Your task to perform on an android device: Go to wifi settings Image 0: 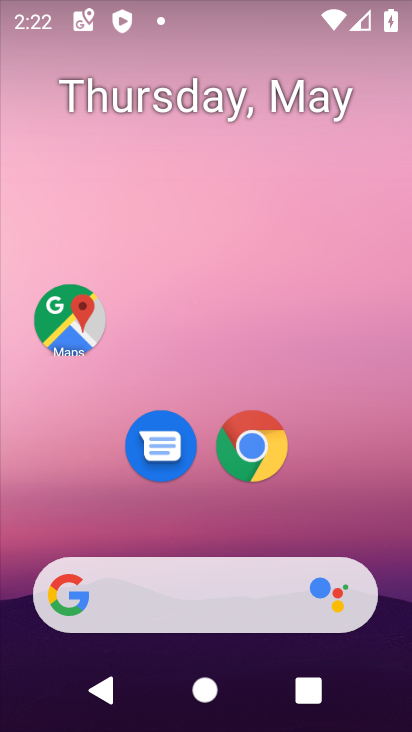
Step 0: drag from (322, 530) to (264, 19)
Your task to perform on an android device: Go to wifi settings Image 1: 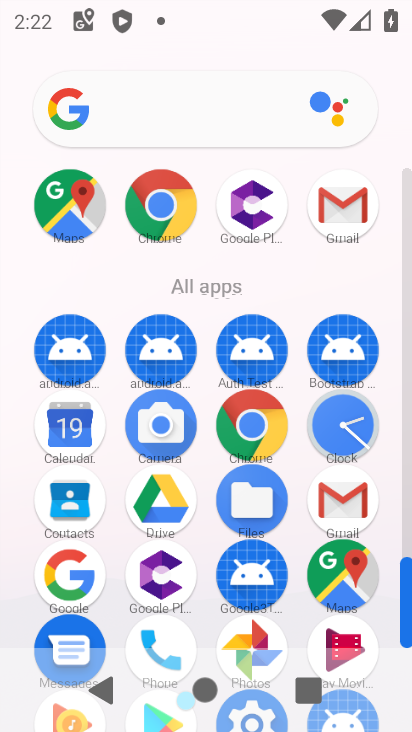
Step 1: drag from (199, 478) to (273, 192)
Your task to perform on an android device: Go to wifi settings Image 2: 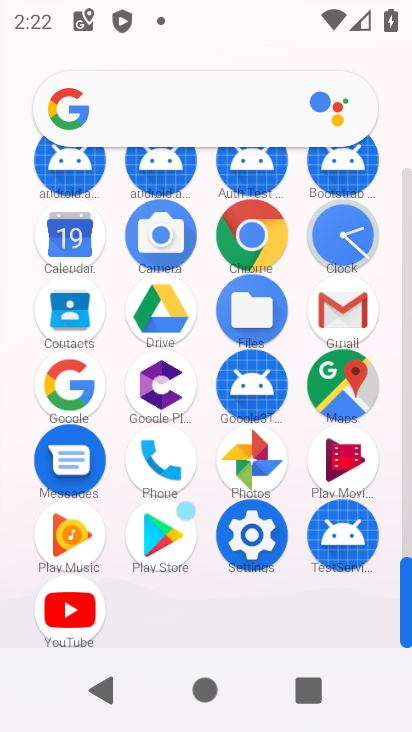
Step 2: click (252, 528)
Your task to perform on an android device: Go to wifi settings Image 3: 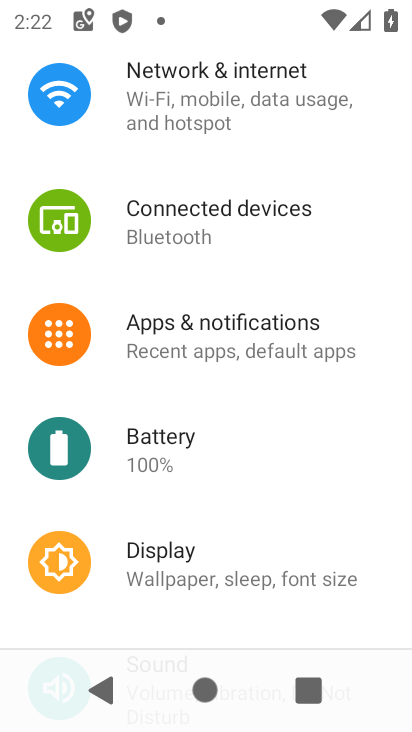
Step 3: drag from (199, 420) to (192, 491)
Your task to perform on an android device: Go to wifi settings Image 4: 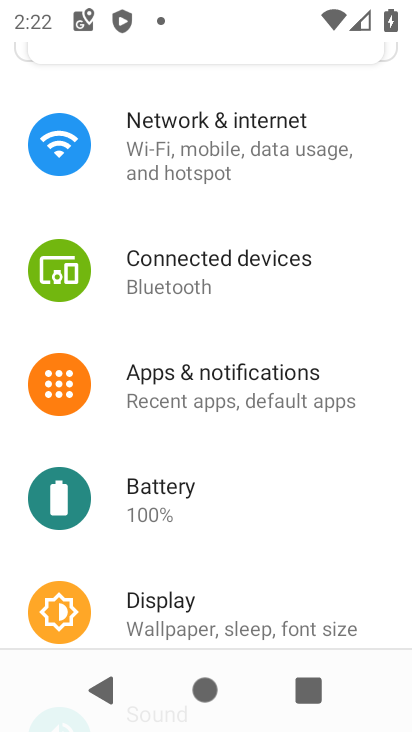
Step 4: drag from (259, 241) to (208, 501)
Your task to perform on an android device: Go to wifi settings Image 5: 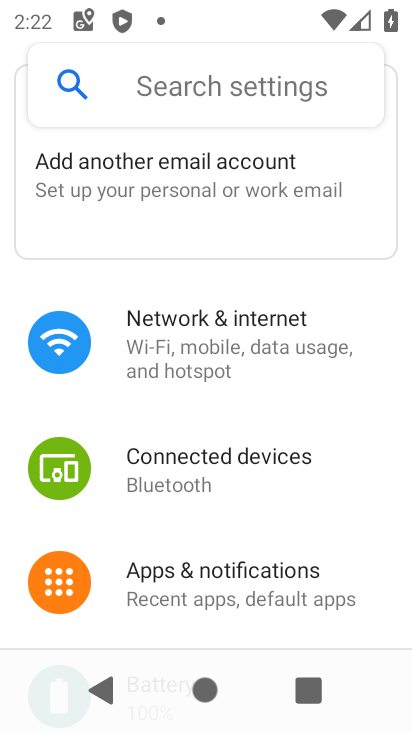
Step 5: click (188, 361)
Your task to perform on an android device: Go to wifi settings Image 6: 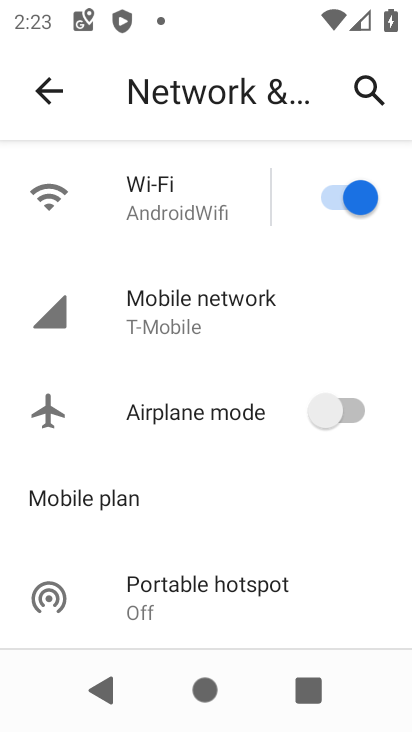
Step 6: click (117, 208)
Your task to perform on an android device: Go to wifi settings Image 7: 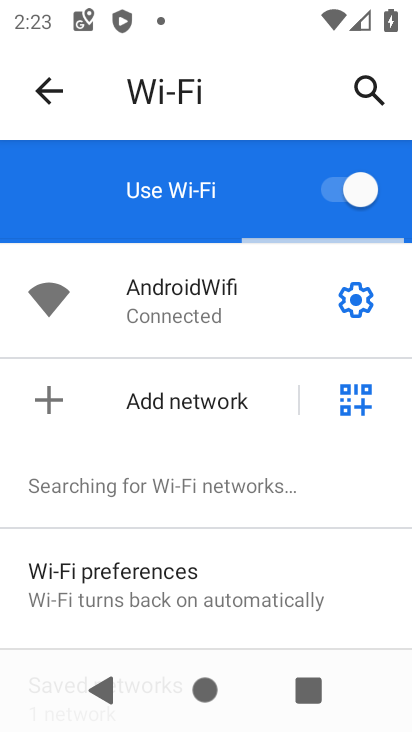
Step 7: task complete